Your task to perform on an android device: Open Youtube and go to the subscriptions tab Image 0: 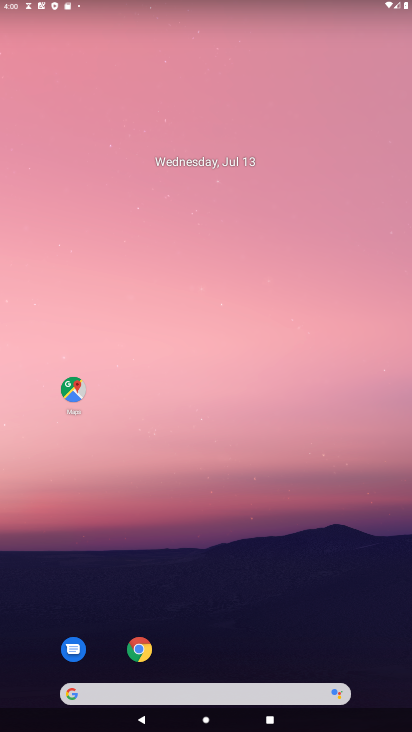
Step 0: drag from (221, 472) to (209, 115)
Your task to perform on an android device: Open Youtube and go to the subscriptions tab Image 1: 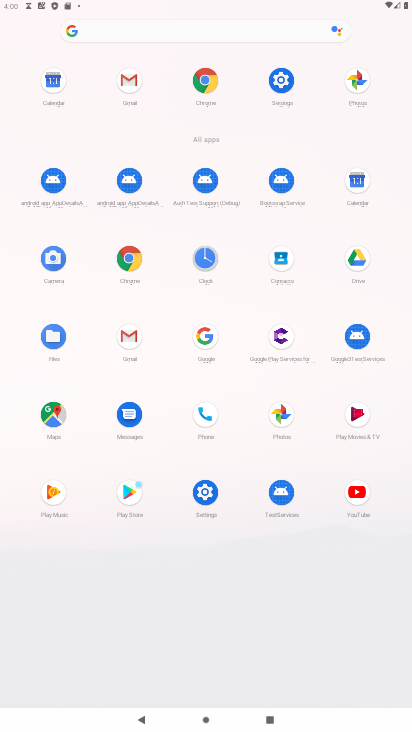
Step 1: click (352, 494)
Your task to perform on an android device: Open Youtube and go to the subscriptions tab Image 2: 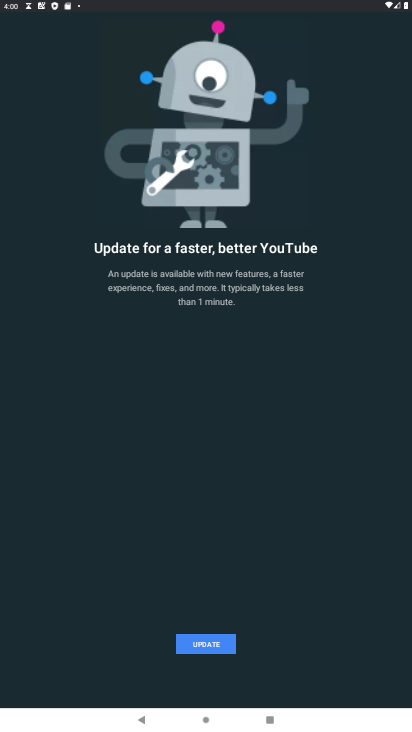
Step 2: task complete